Your task to perform on an android device: visit the assistant section in the google photos Image 0: 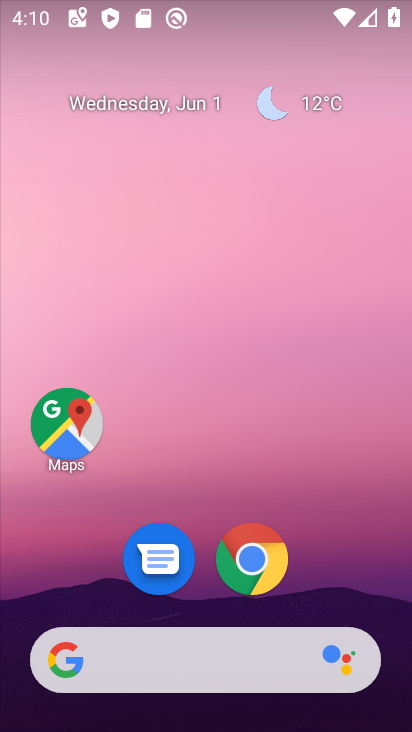
Step 0: drag from (316, 602) to (316, 32)
Your task to perform on an android device: visit the assistant section in the google photos Image 1: 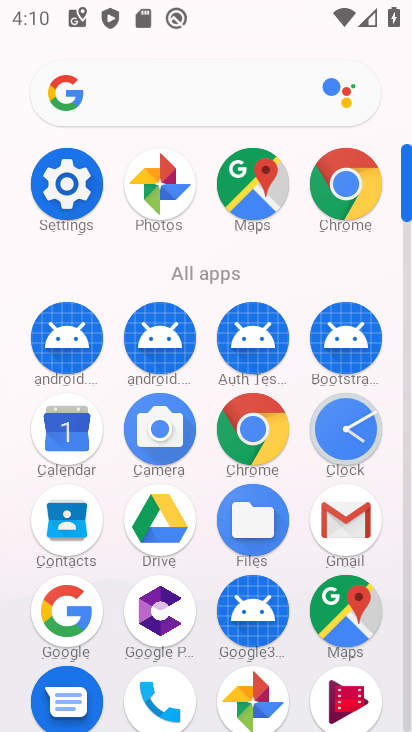
Step 1: click (162, 184)
Your task to perform on an android device: visit the assistant section in the google photos Image 2: 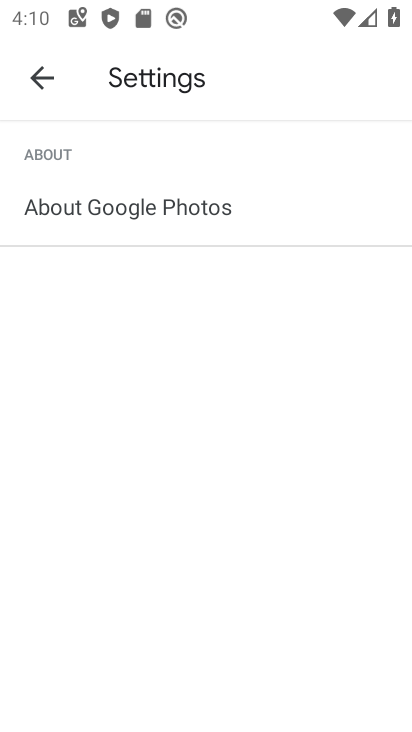
Step 2: click (50, 75)
Your task to perform on an android device: visit the assistant section in the google photos Image 3: 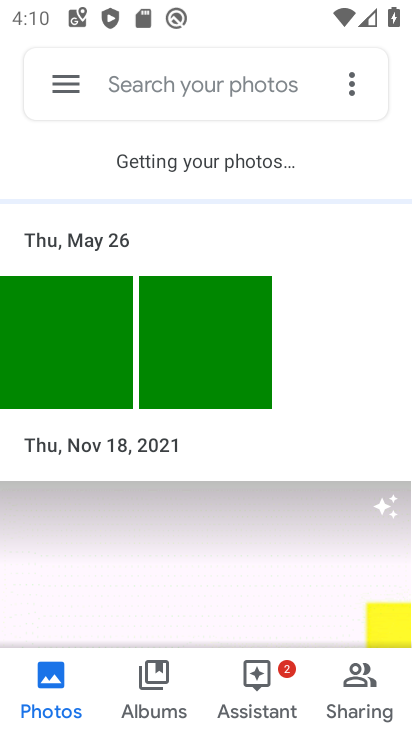
Step 3: click (253, 691)
Your task to perform on an android device: visit the assistant section in the google photos Image 4: 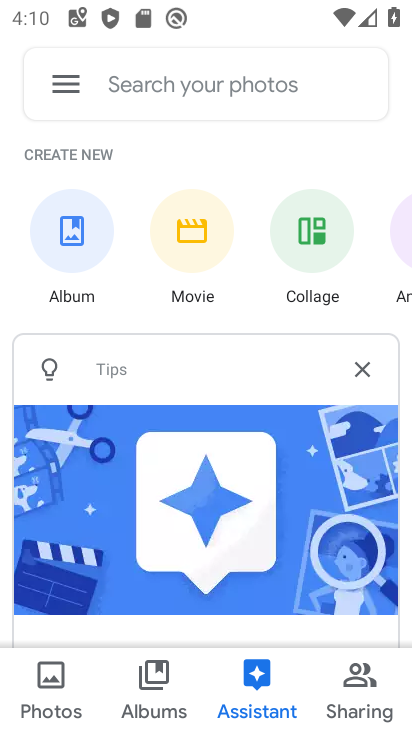
Step 4: task complete